Your task to perform on an android device: Open Youtube and go to "Your channel" Image 0: 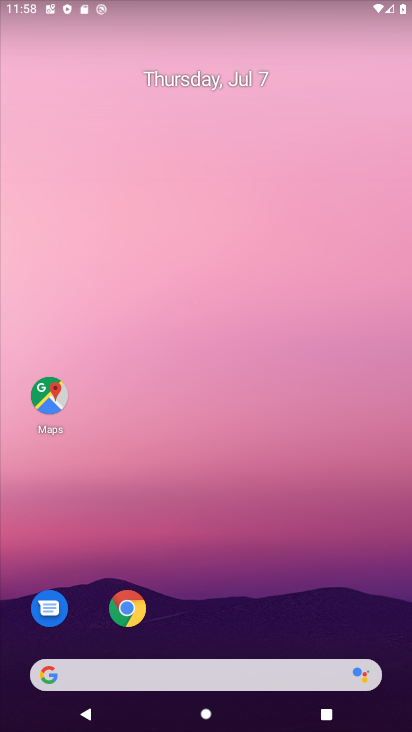
Step 0: drag from (239, 585) to (274, 159)
Your task to perform on an android device: Open Youtube and go to "Your channel" Image 1: 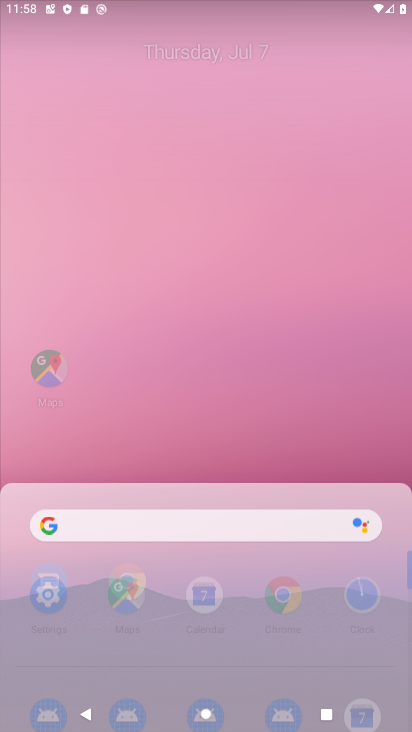
Step 1: click (274, 159)
Your task to perform on an android device: Open Youtube and go to "Your channel" Image 2: 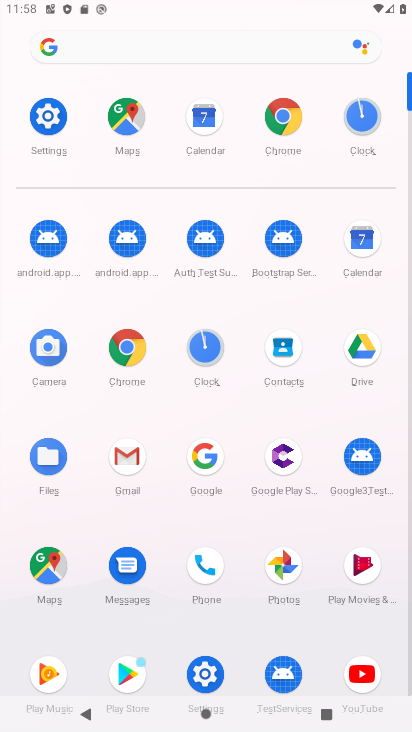
Step 2: click (371, 686)
Your task to perform on an android device: Open Youtube and go to "Your channel" Image 3: 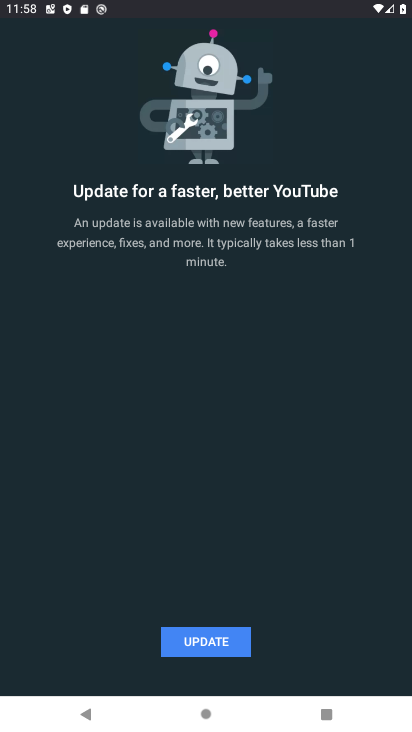
Step 3: click (232, 626)
Your task to perform on an android device: Open Youtube and go to "Your channel" Image 4: 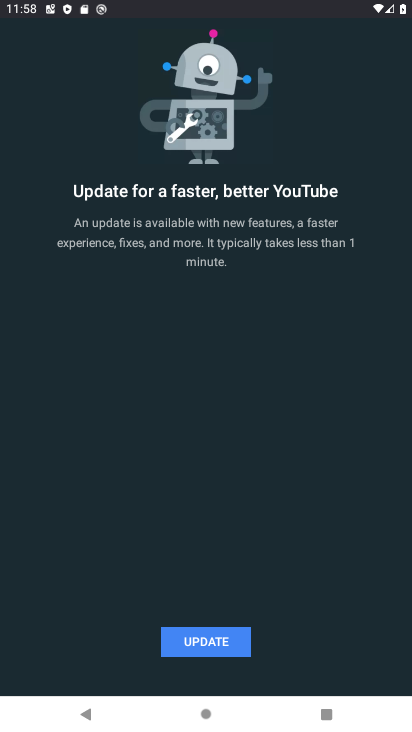
Step 4: click (230, 652)
Your task to perform on an android device: Open Youtube and go to "Your channel" Image 5: 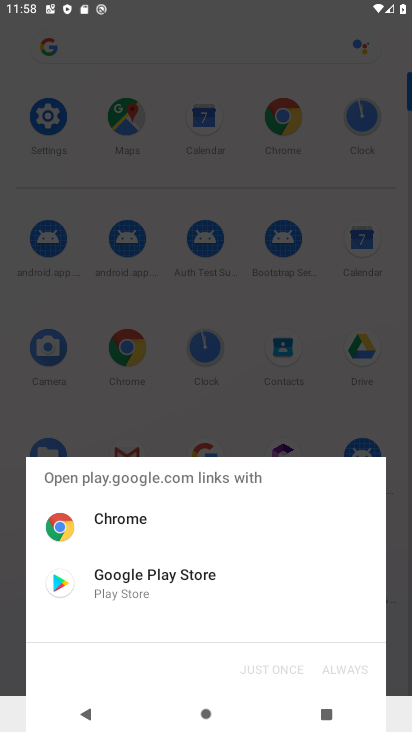
Step 5: click (189, 599)
Your task to perform on an android device: Open Youtube and go to "Your channel" Image 6: 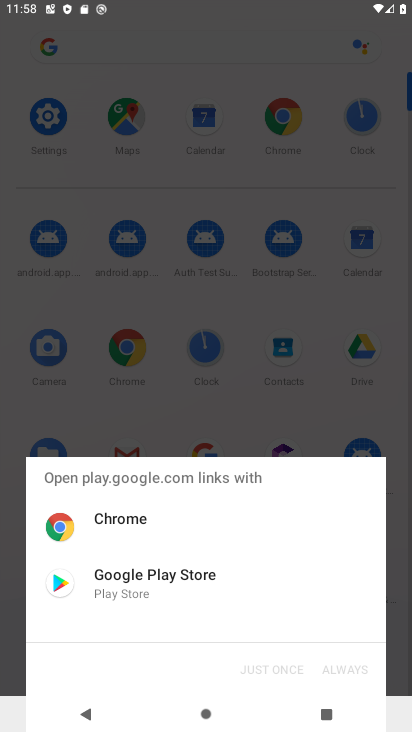
Step 6: click (189, 599)
Your task to perform on an android device: Open Youtube and go to "Your channel" Image 7: 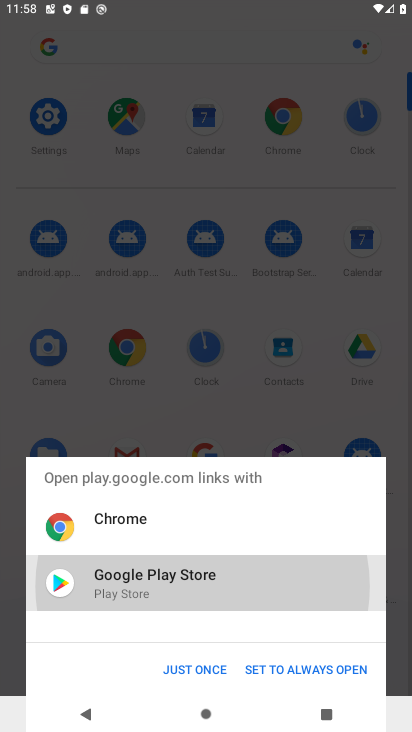
Step 7: click (189, 599)
Your task to perform on an android device: Open Youtube and go to "Your channel" Image 8: 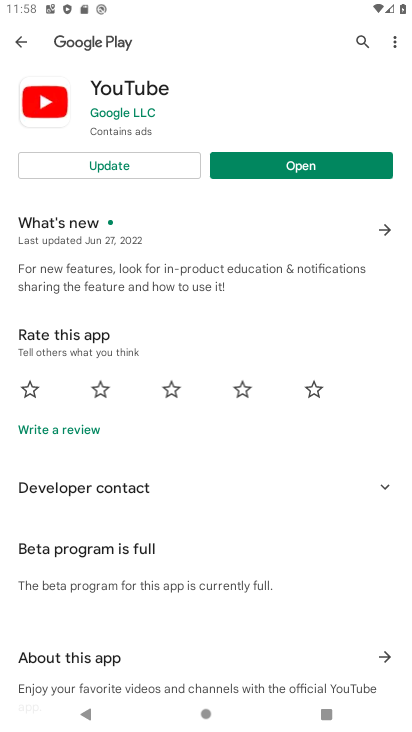
Step 8: click (151, 173)
Your task to perform on an android device: Open Youtube and go to "Your channel" Image 9: 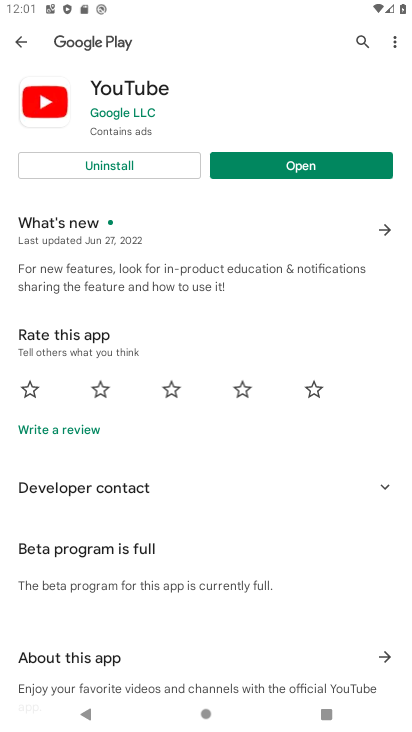
Step 9: click (266, 169)
Your task to perform on an android device: Open Youtube and go to "Your channel" Image 10: 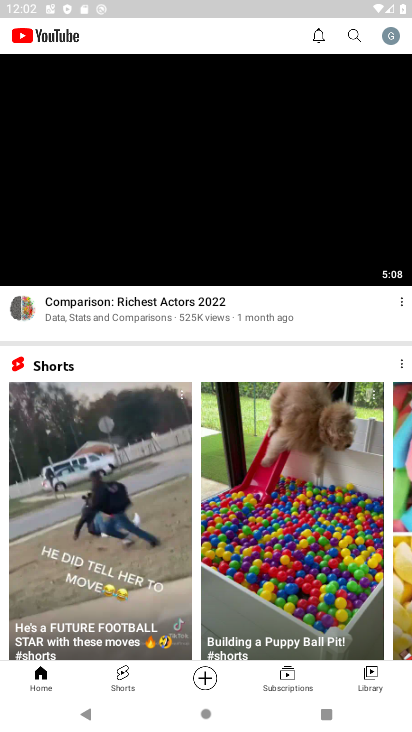
Step 10: click (374, 690)
Your task to perform on an android device: Open Youtube and go to "Your channel" Image 11: 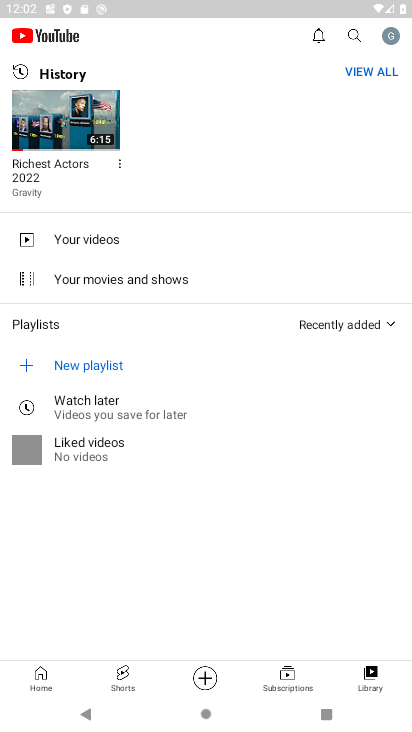
Step 11: click (388, 47)
Your task to perform on an android device: Open Youtube and go to "Your channel" Image 12: 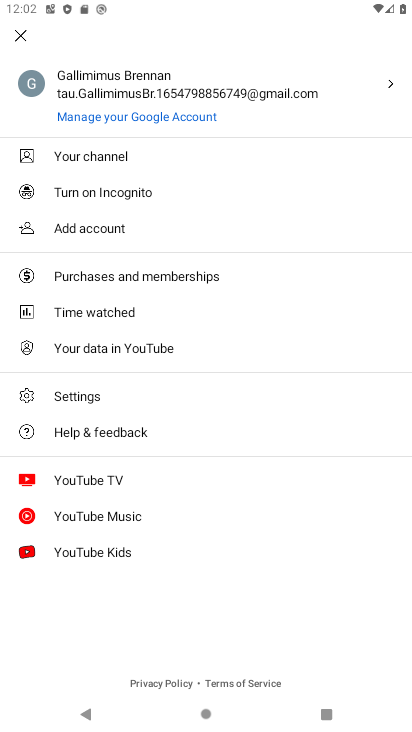
Step 12: click (152, 162)
Your task to perform on an android device: Open Youtube and go to "Your channel" Image 13: 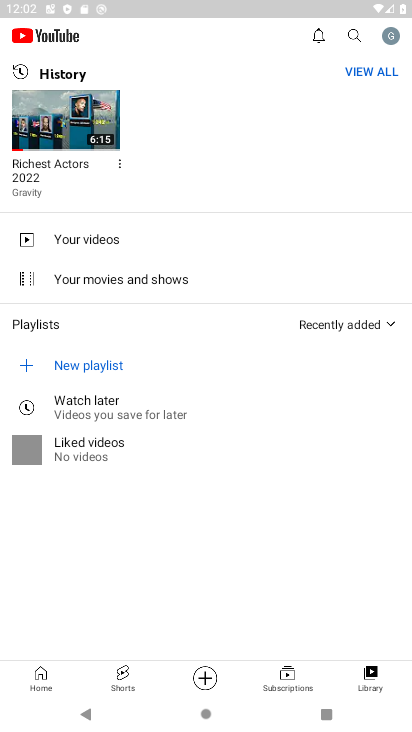
Step 13: task complete